Your task to perform on an android device: Open battery settings Image 0: 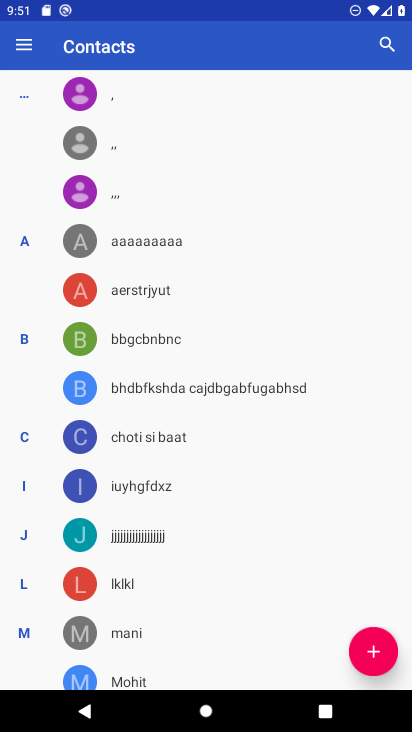
Step 0: drag from (260, 5) to (269, 648)
Your task to perform on an android device: Open battery settings Image 1: 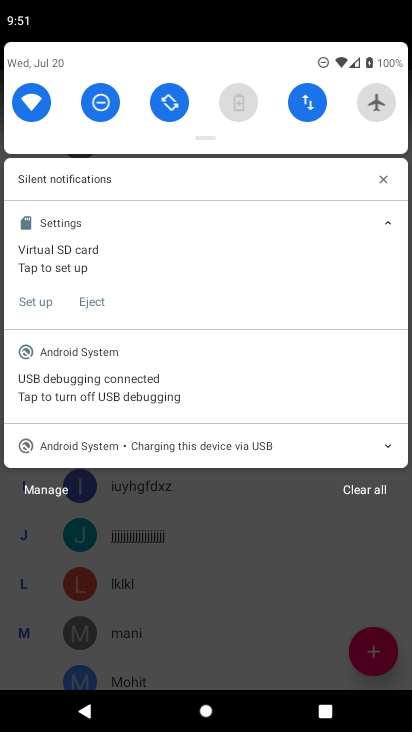
Step 1: click (237, 103)
Your task to perform on an android device: Open battery settings Image 2: 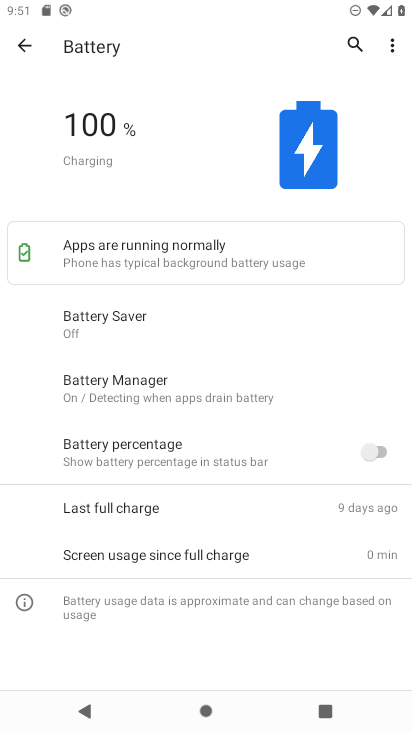
Step 2: task complete